Your task to perform on an android device: change the clock display to show seconds Image 0: 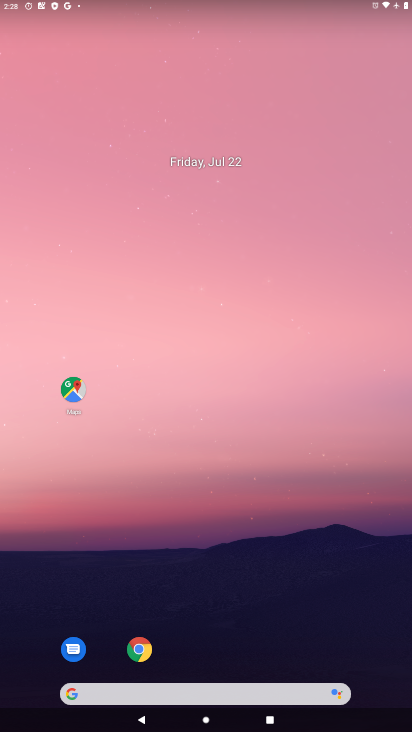
Step 0: drag from (228, 609) to (219, 20)
Your task to perform on an android device: change the clock display to show seconds Image 1: 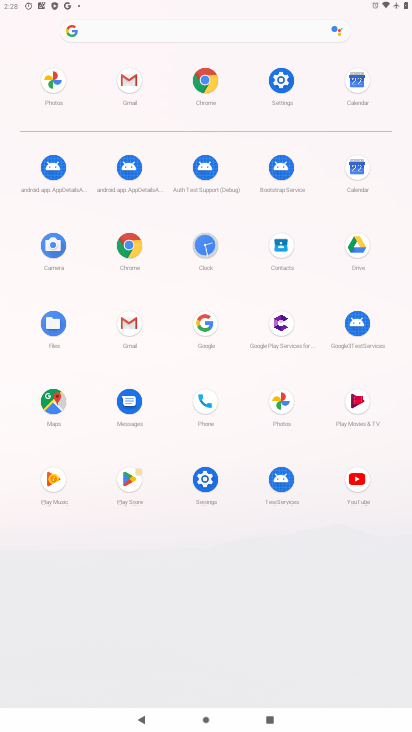
Step 1: click (199, 246)
Your task to perform on an android device: change the clock display to show seconds Image 2: 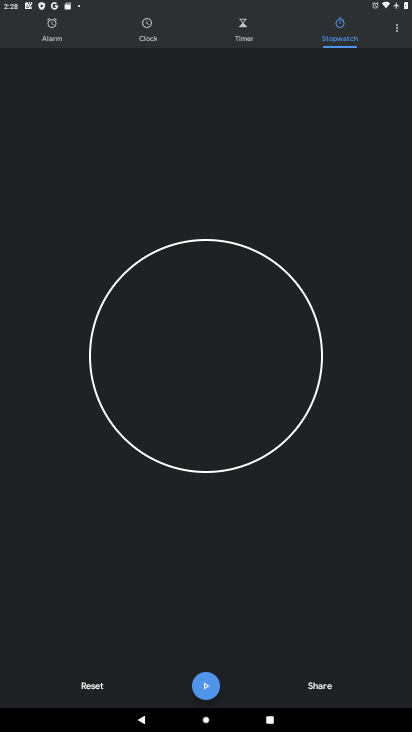
Step 2: click (405, 26)
Your task to perform on an android device: change the clock display to show seconds Image 3: 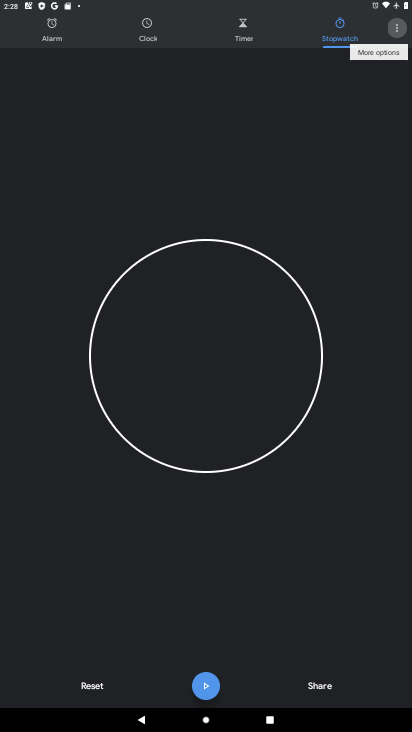
Step 3: click (405, 27)
Your task to perform on an android device: change the clock display to show seconds Image 4: 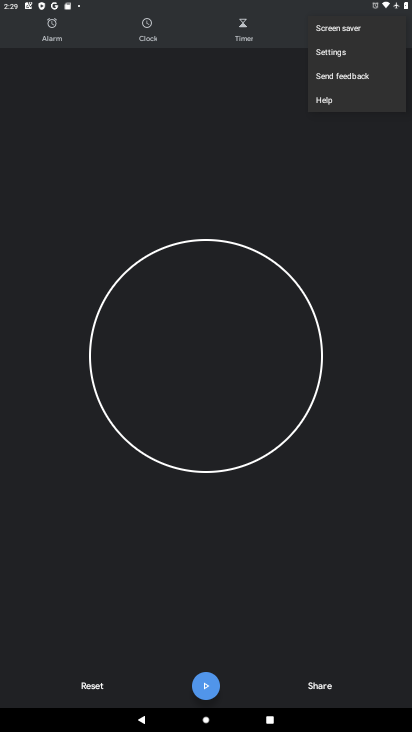
Step 4: click (334, 58)
Your task to perform on an android device: change the clock display to show seconds Image 5: 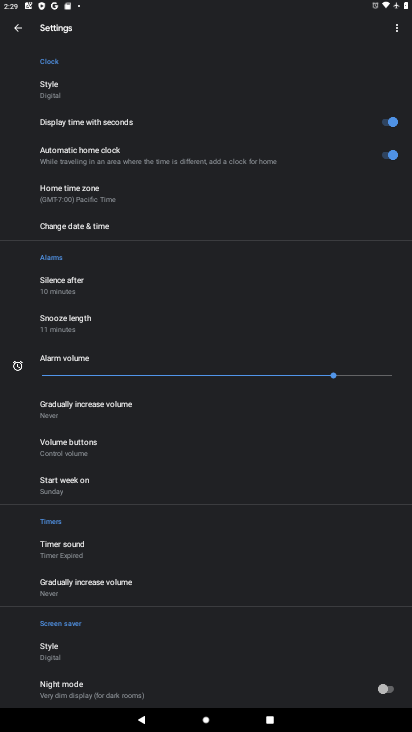
Step 5: task complete